Your task to perform on an android device: Go to ESPN.com Image 0: 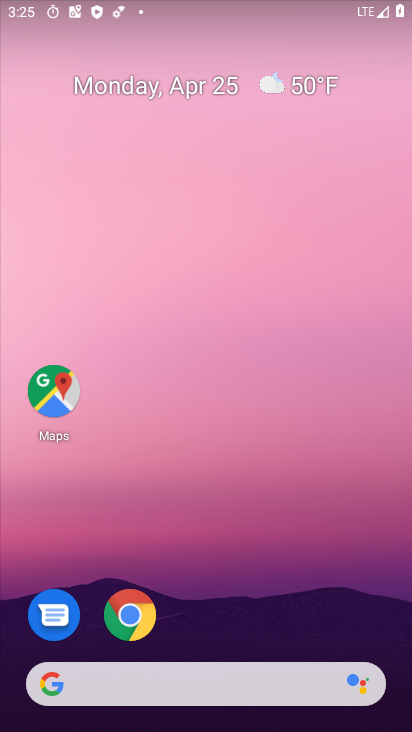
Step 0: click (129, 616)
Your task to perform on an android device: Go to ESPN.com Image 1: 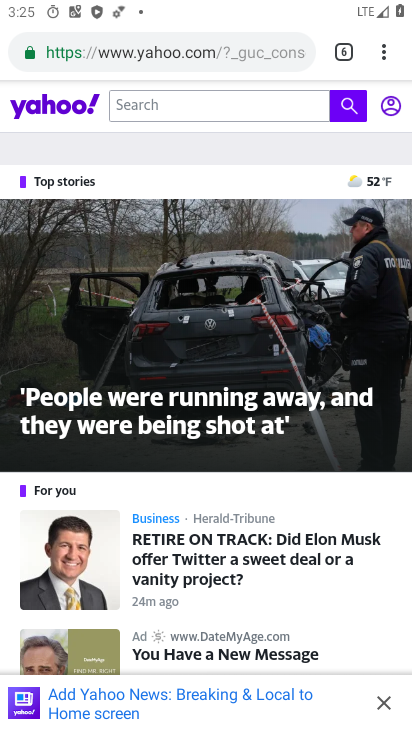
Step 1: drag from (383, 53) to (213, 157)
Your task to perform on an android device: Go to ESPN.com Image 2: 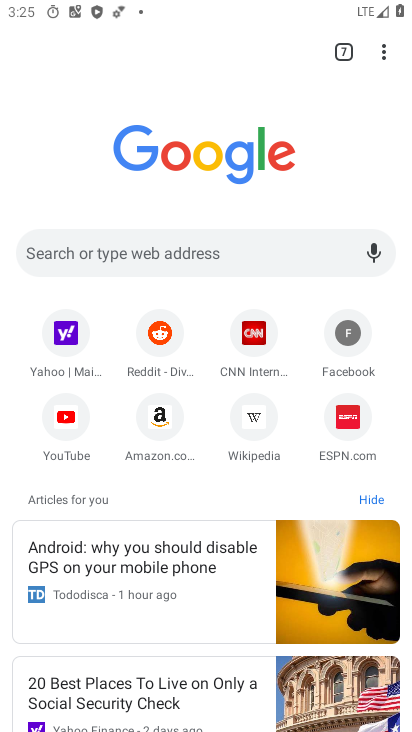
Step 2: click (340, 425)
Your task to perform on an android device: Go to ESPN.com Image 3: 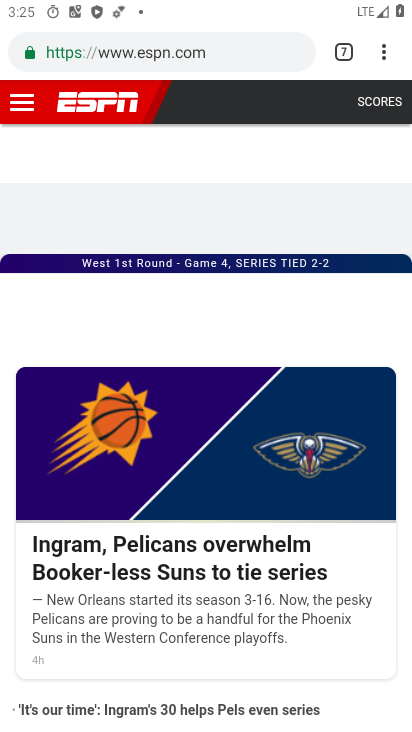
Step 3: task complete